Your task to perform on an android device: Open Amazon Image 0: 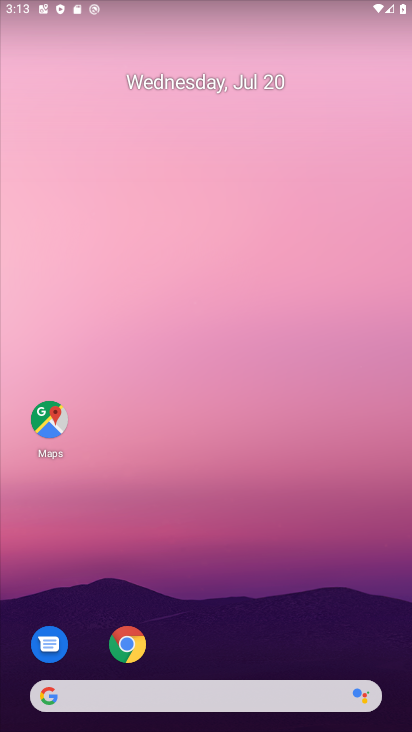
Step 0: drag from (204, 678) to (240, 275)
Your task to perform on an android device: Open Amazon Image 1: 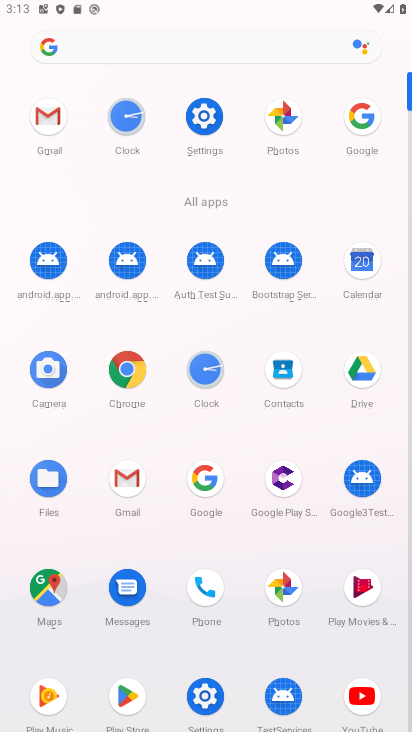
Step 1: click (134, 369)
Your task to perform on an android device: Open Amazon Image 2: 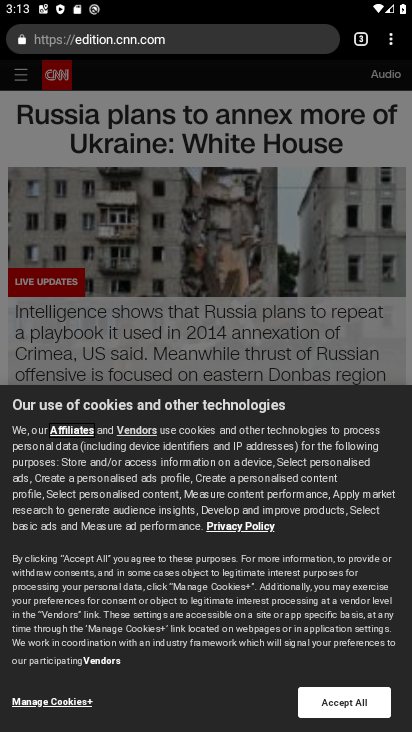
Step 2: click (358, 40)
Your task to perform on an android device: Open Amazon Image 3: 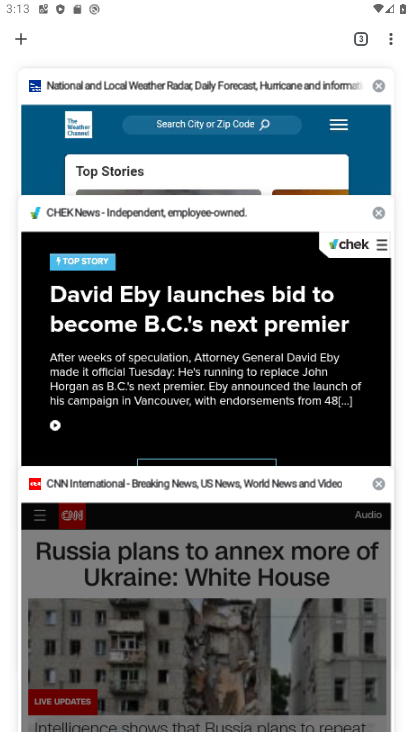
Step 3: click (372, 86)
Your task to perform on an android device: Open Amazon Image 4: 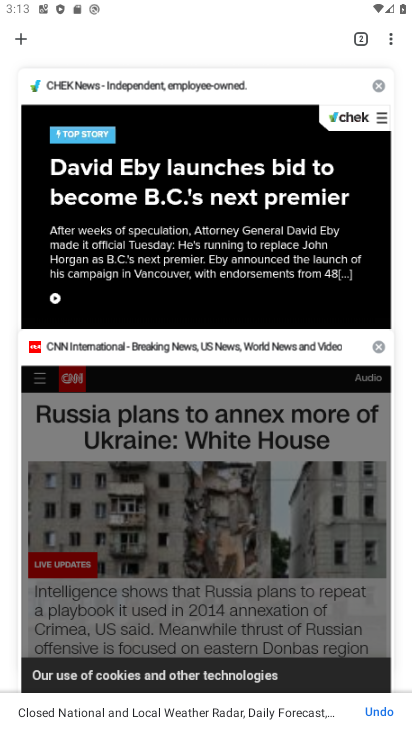
Step 4: click (372, 86)
Your task to perform on an android device: Open Amazon Image 5: 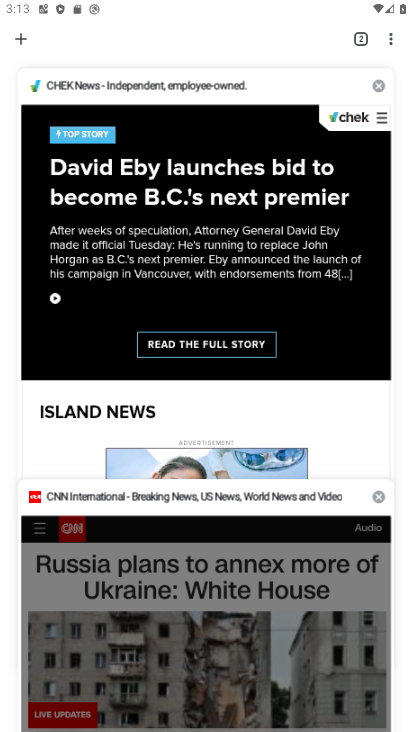
Step 5: click (380, 86)
Your task to perform on an android device: Open Amazon Image 6: 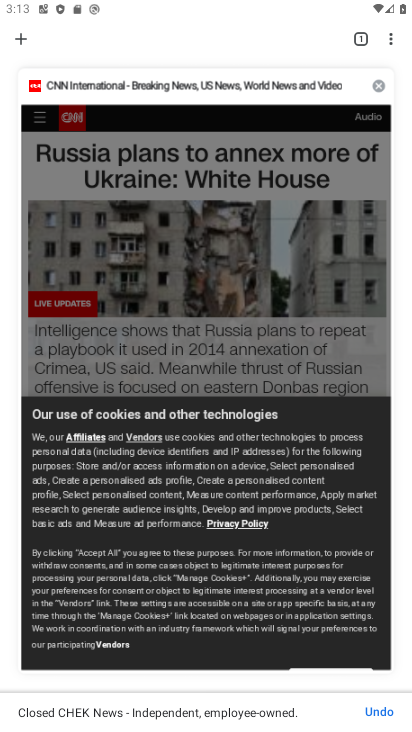
Step 6: click (380, 86)
Your task to perform on an android device: Open Amazon Image 7: 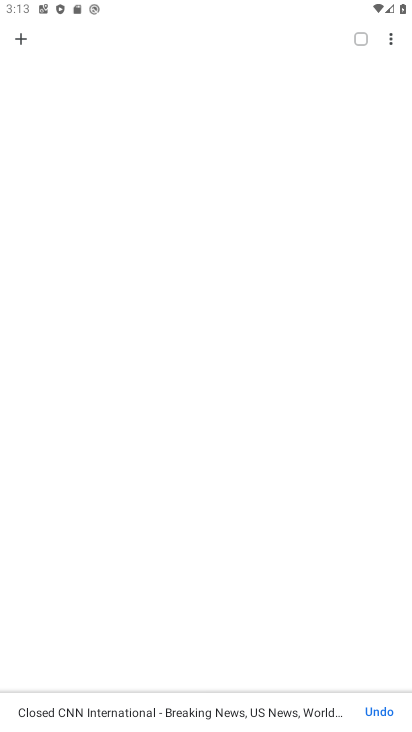
Step 7: click (18, 33)
Your task to perform on an android device: Open Amazon Image 8: 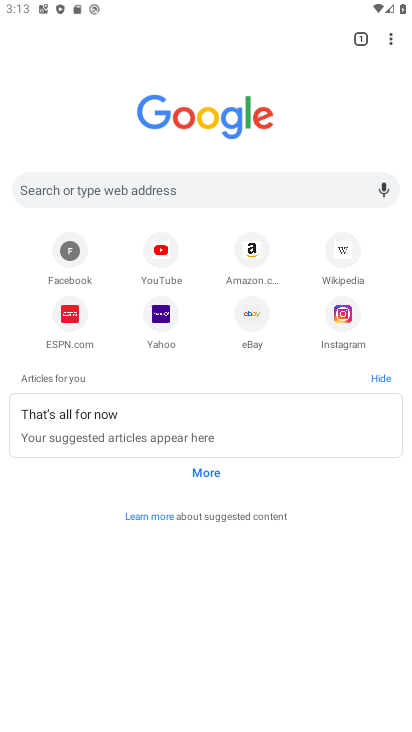
Step 8: click (244, 249)
Your task to perform on an android device: Open Amazon Image 9: 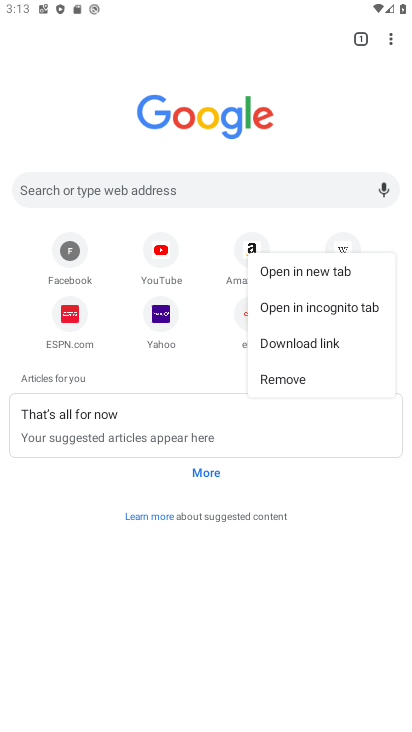
Step 9: click (244, 239)
Your task to perform on an android device: Open Amazon Image 10: 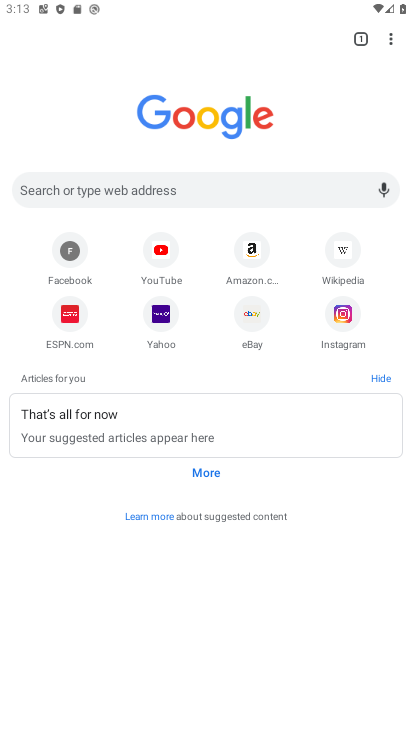
Step 10: click (248, 247)
Your task to perform on an android device: Open Amazon Image 11: 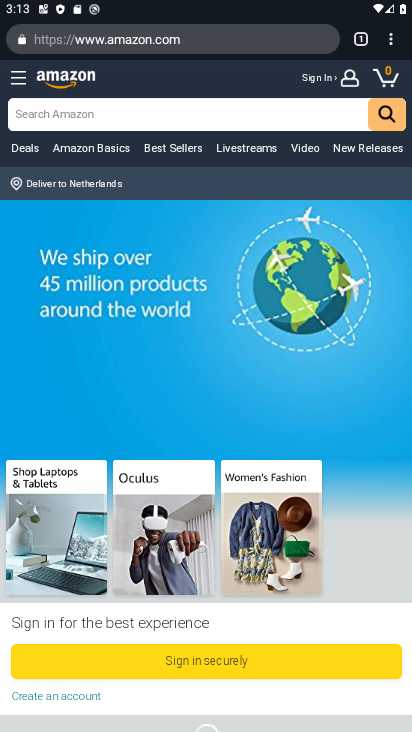
Step 11: task complete